Your task to perform on an android device: Add "duracell triple a" to the cart on target.com Image 0: 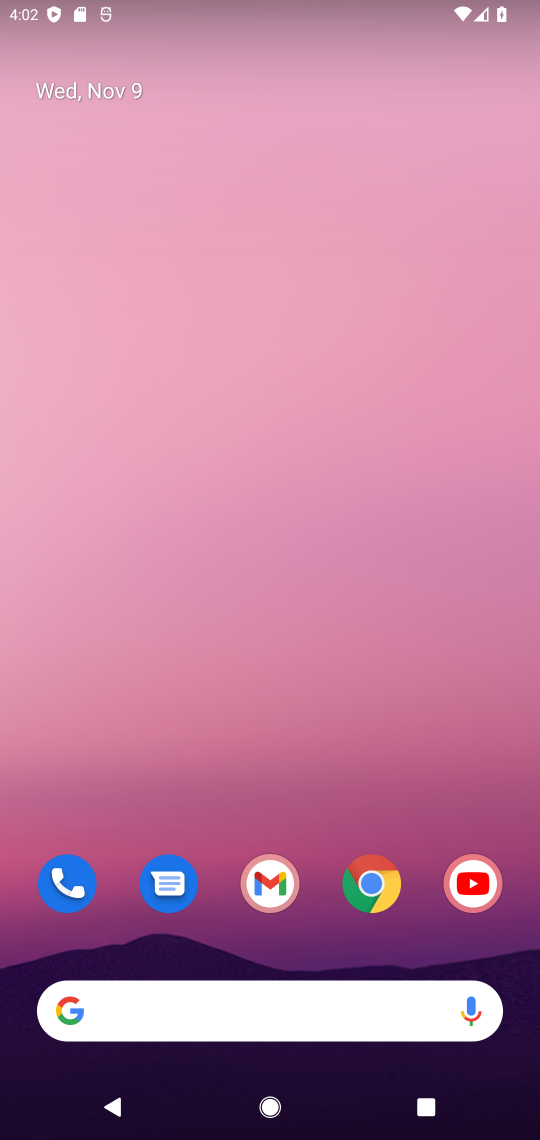
Step 0: click (380, 876)
Your task to perform on an android device: Add "duracell triple a" to the cart on target.com Image 1: 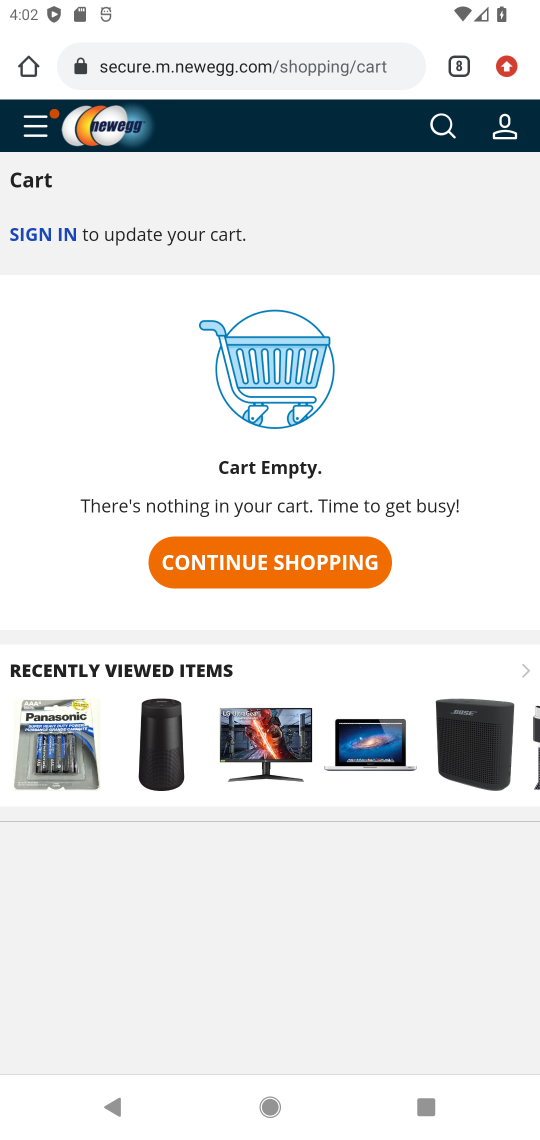
Step 1: click (461, 70)
Your task to perform on an android device: Add "duracell triple a" to the cart on target.com Image 2: 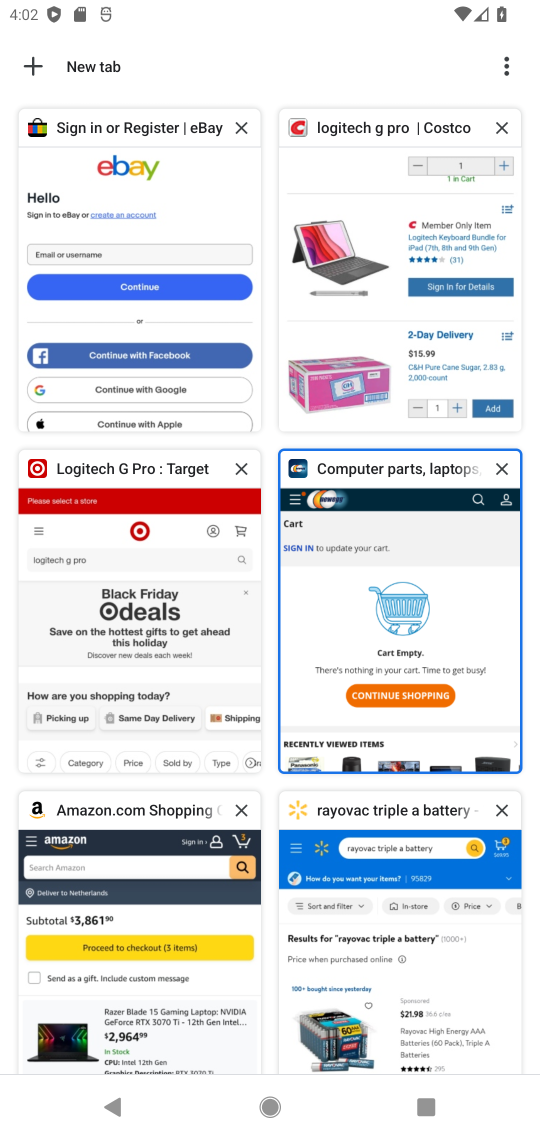
Step 2: click (161, 631)
Your task to perform on an android device: Add "duracell triple a" to the cart on target.com Image 3: 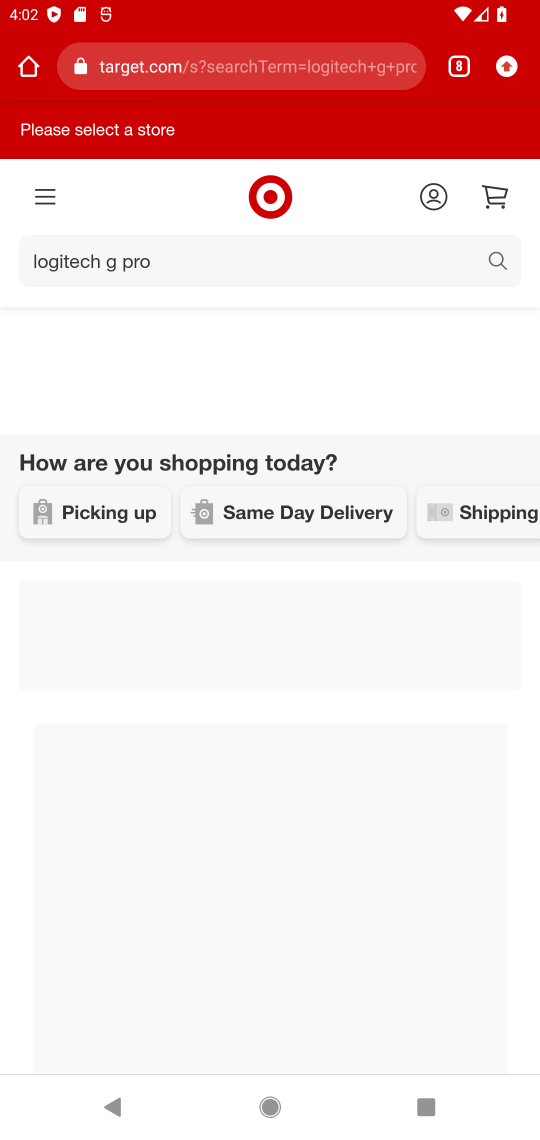
Step 3: click (126, 257)
Your task to perform on an android device: Add "duracell triple a" to the cart on target.com Image 4: 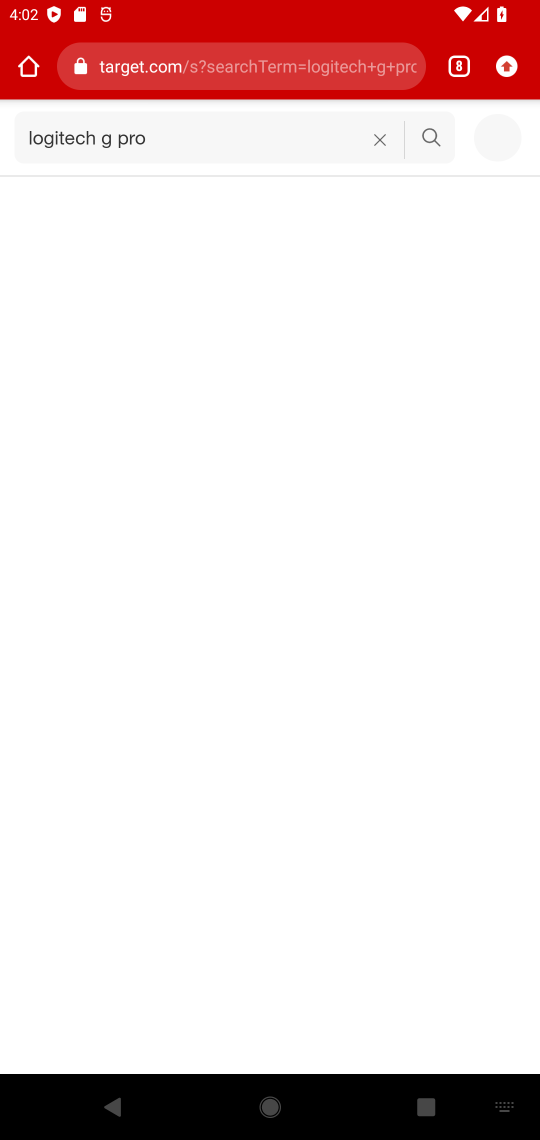
Step 4: click (379, 140)
Your task to perform on an android device: Add "duracell triple a" to the cart on target.com Image 5: 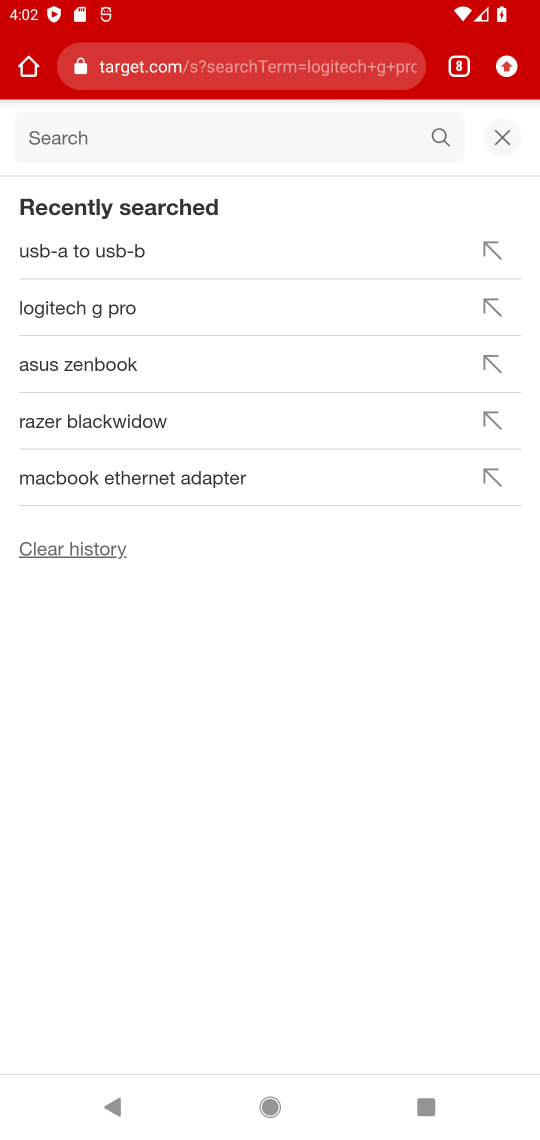
Step 5: type "duracell triple a"
Your task to perform on an android device: Add "duracell triple a" to the cart on target.com Image 6: 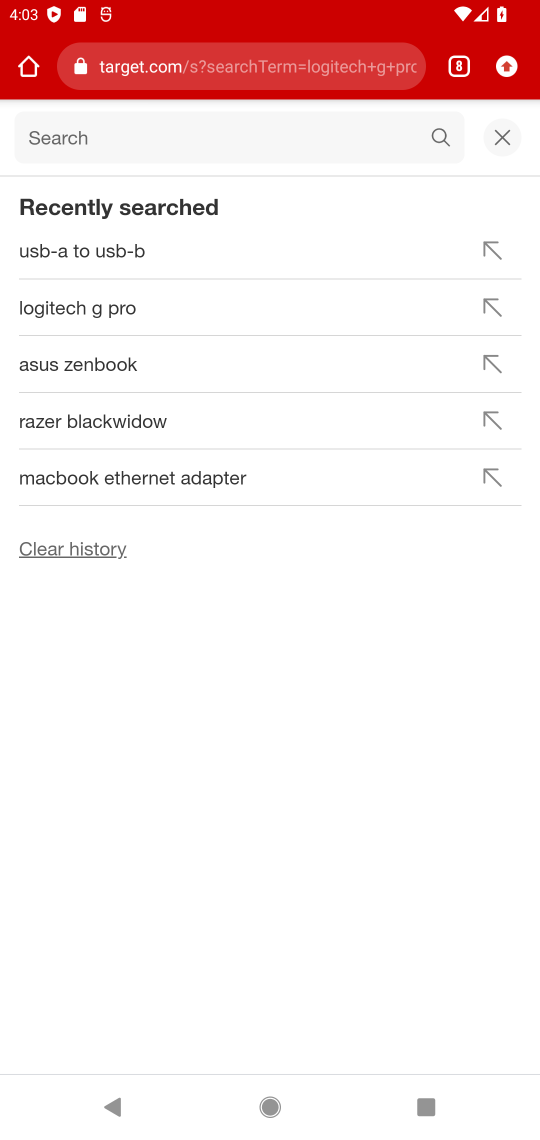
Step 6: click (71, 139)
Your task to perform on an android device: Add "duracell triple a" to the cart on target.com Image 7: 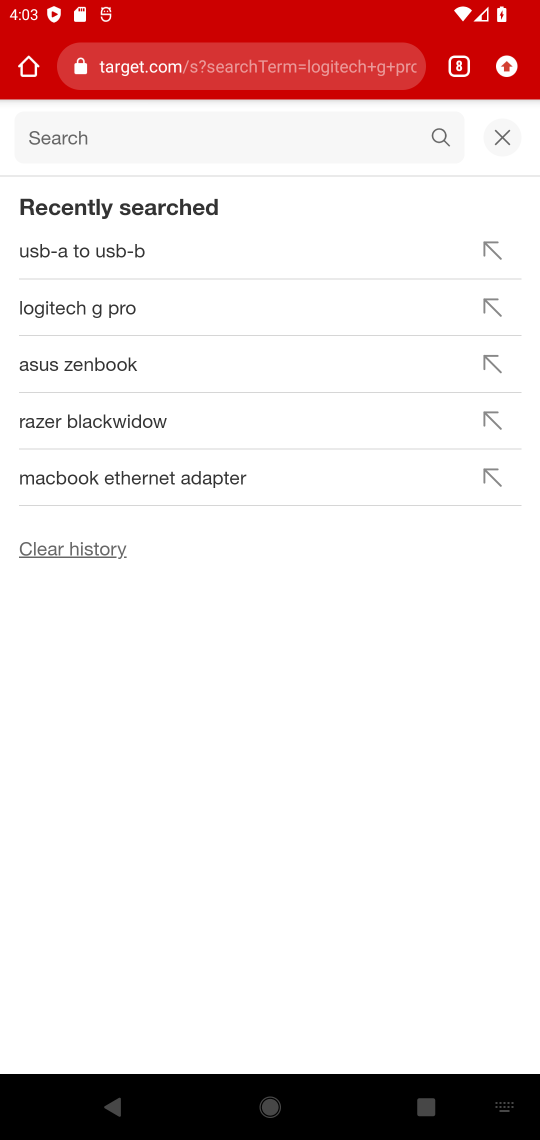
Step 7: type "duracell triple a"
Your task to perform on an android device: Add "duracell triple a" to the cart on target.com Image 8: 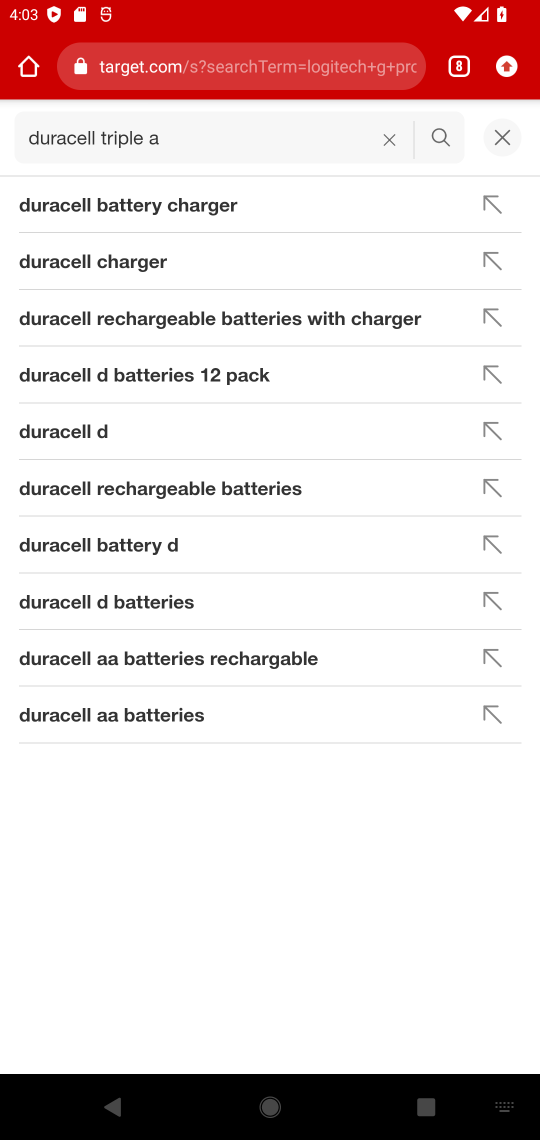
Step 8: click (162, 210)
Your task to perform on an android device: Add "duracell triple a" to the cart on target.com Image 9: 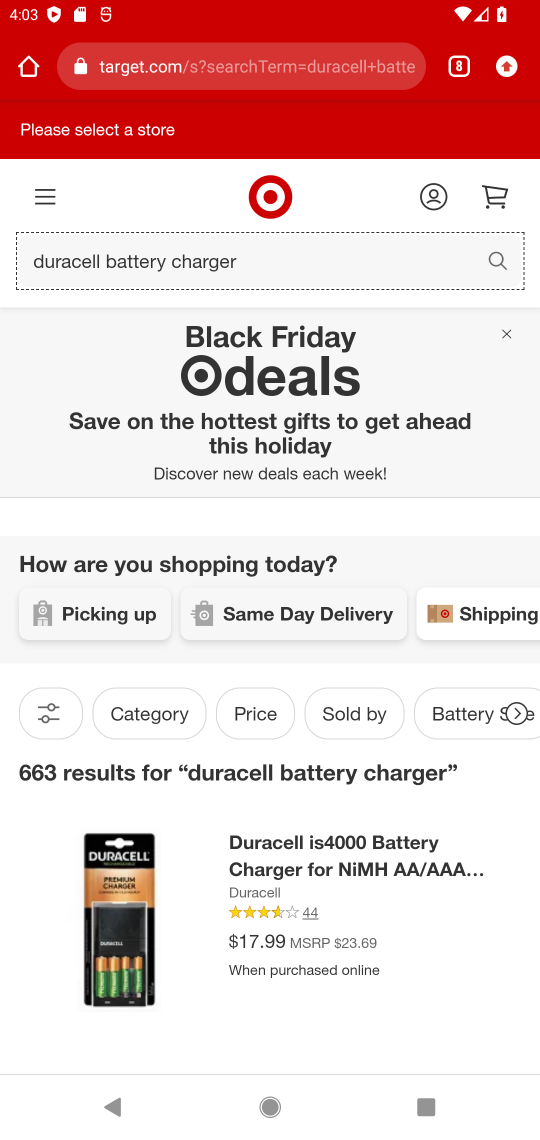
Step 9: drag from (365, 931) to (317, 454)
Your task to perform on an android device: Add "duracell triple a" to the cart on target.com Image 10: 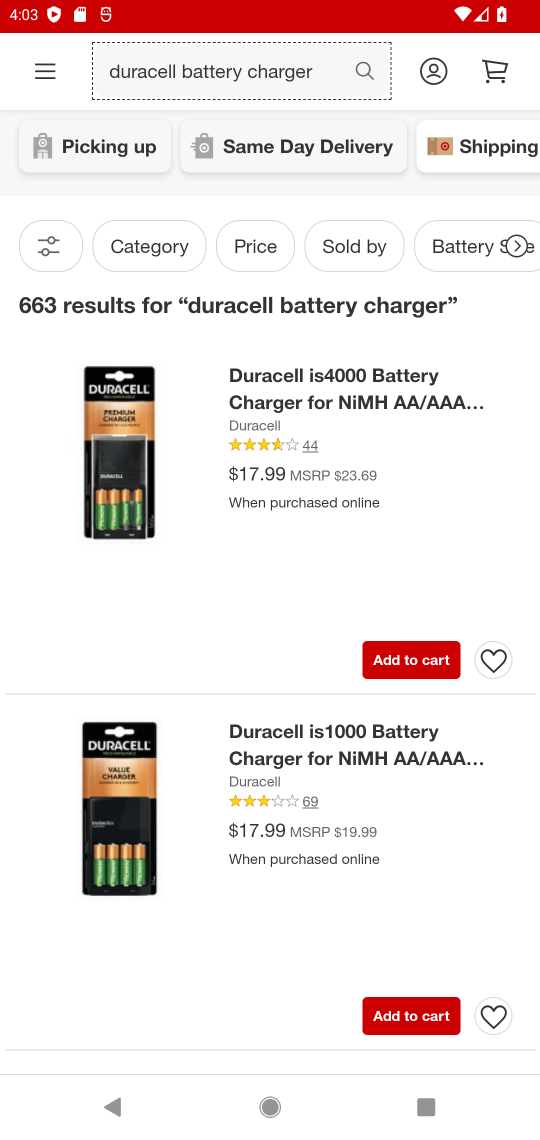
Step 10: click (401, 662)
Your task to perform on an android device: Add "duracell triple a" to the cart on target.com Image 11: 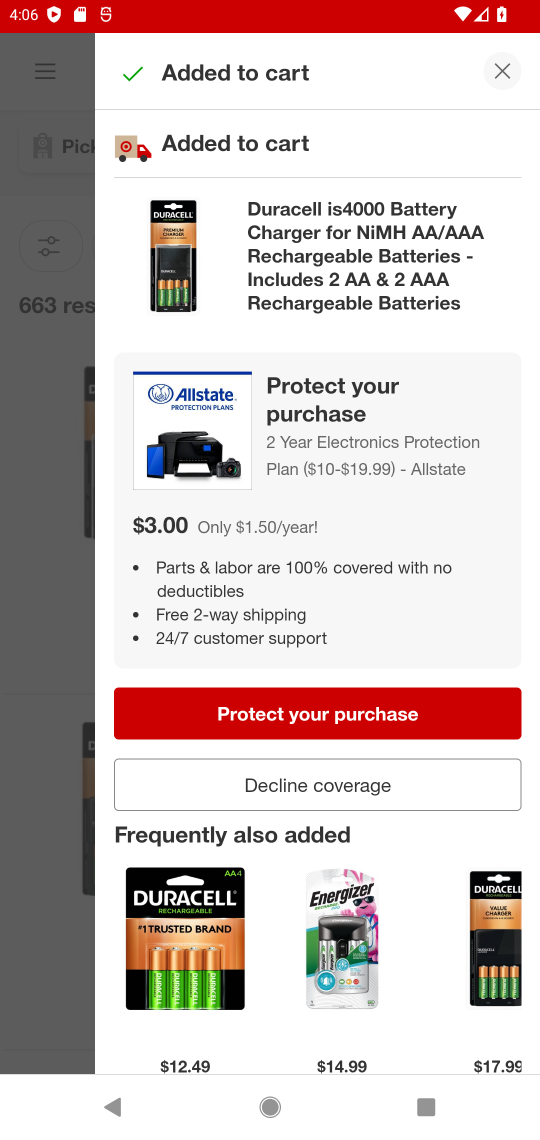
Step 11: task complete